Your task to perform on an android device: Go to battery settings Image 0: 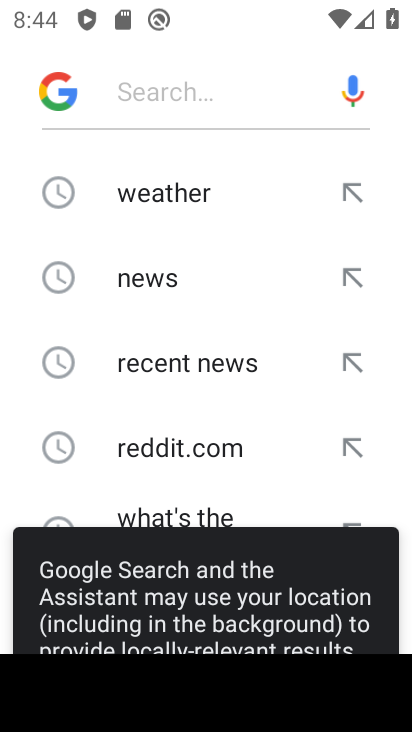
Step 0: press back button
Your task to perform on an android device: Go to battery settings Image 1: 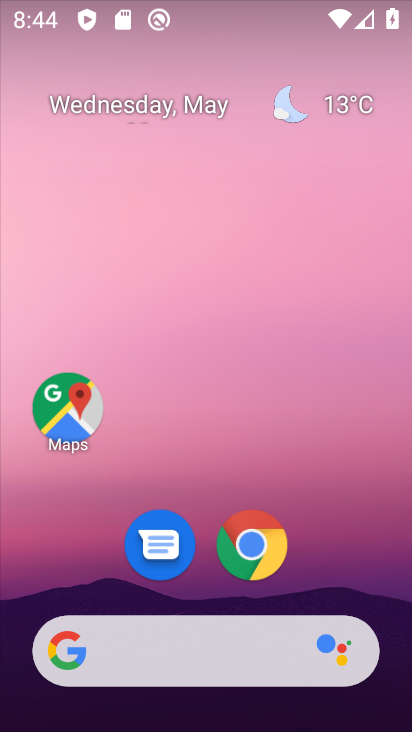
Step 1: drag from (333, 501) to (239, 45)
Your task to perform on an android device: Go to battery settings Image 2: 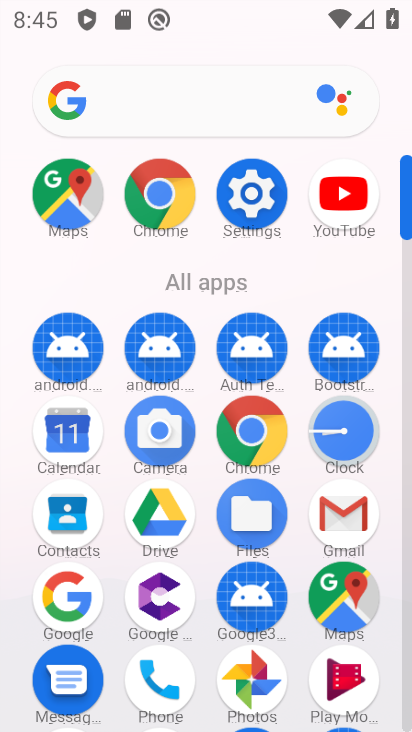
Step 2: click (251, 187)
Your task to perform on an android device: Go to battery settings Image 3: 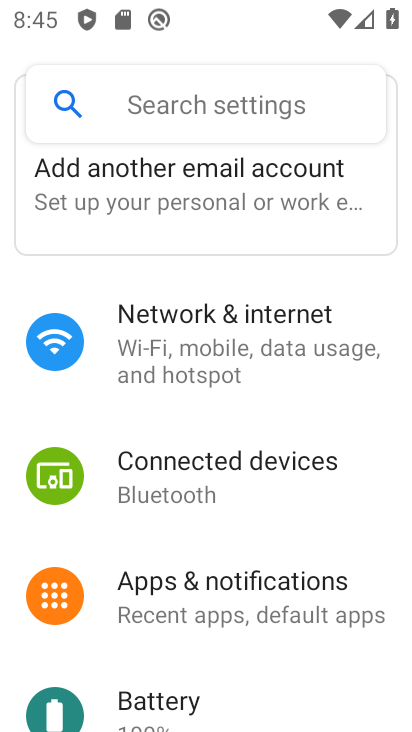
Step 3: click (195, 699)
Your task to perform on an android device: Go to battery settings Image 4: 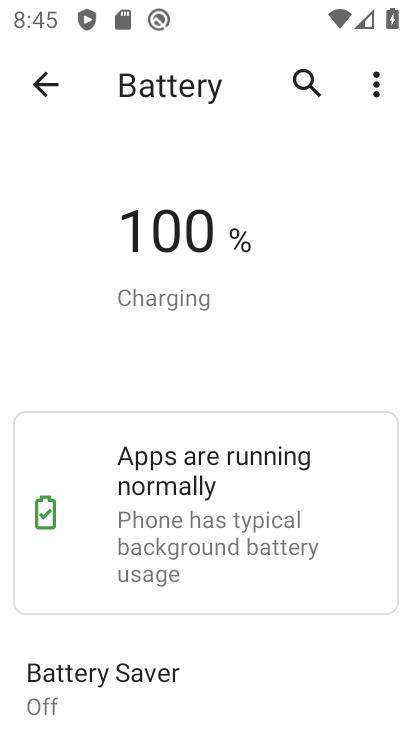
Step 4: task complete